Your task to perform on an android device: View the shopping cart on amazon. Search for alienware aurora on amazon, select the first entry, add it to the cart, then select checkout. Image 0: 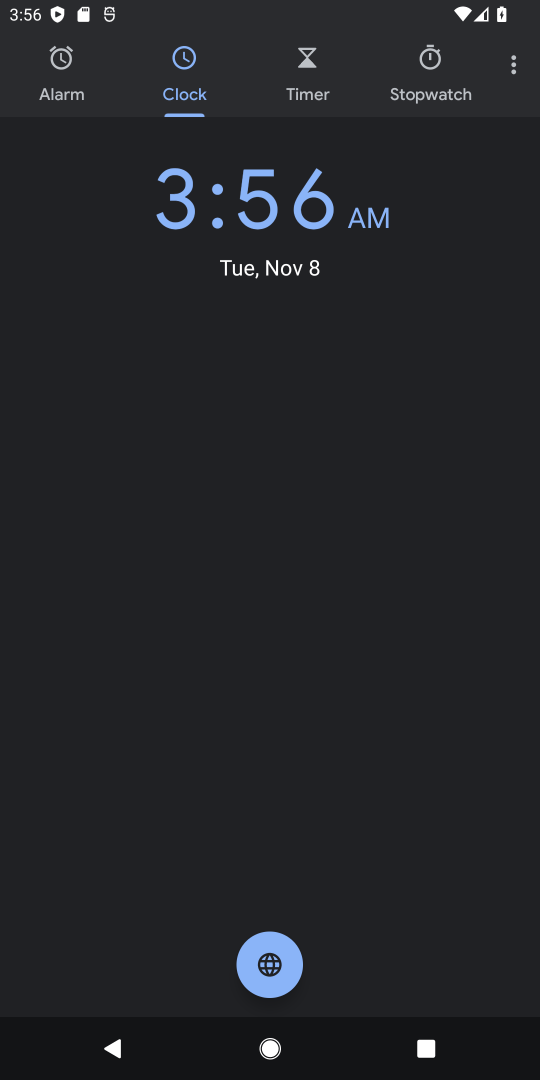
Step 0: press home button
Your task to perform on an android device: View the shopping cart on amazon. Search for alienware aurora on amazon, select the first entry, add it to the cart, then select checkout. Image 1: 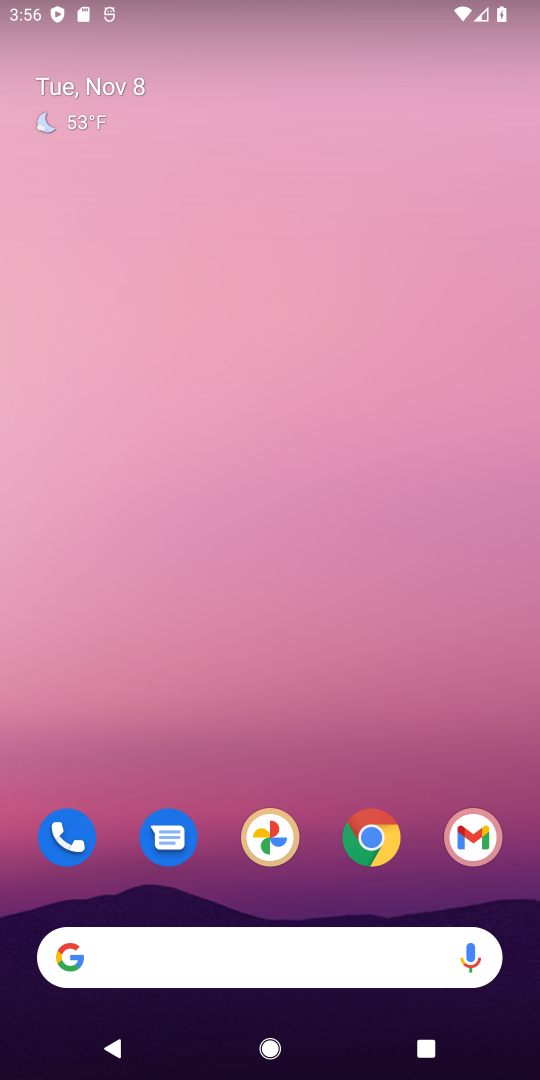
Step 1: press home button
Your task to perform on an android device: View the shopping cart on amazon. Search for alienware aurora on amazon, select the first entry, add it to the cart, then select checkout. Image 2: 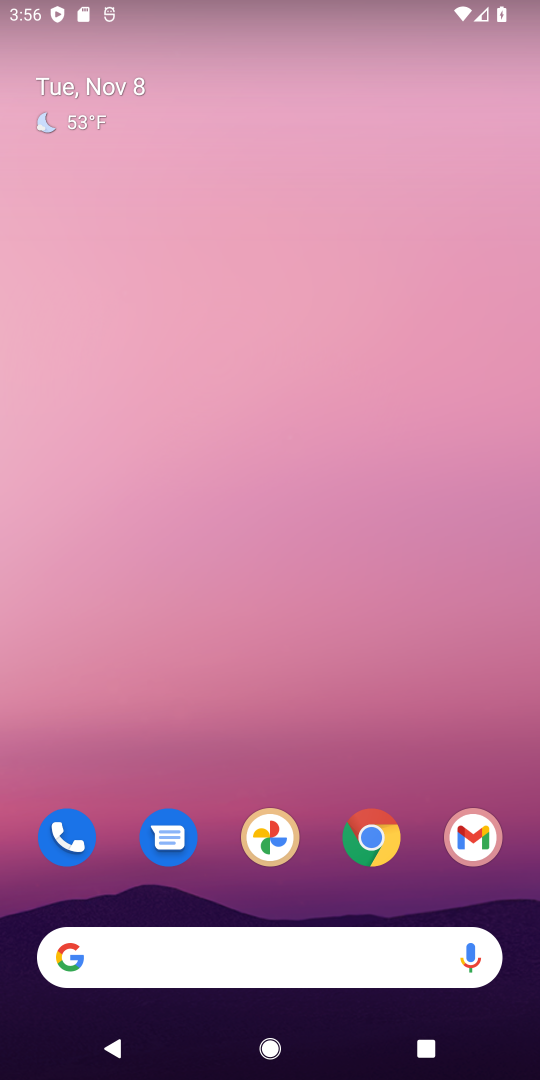
Step 2: click (375, 847)
Your task to perform on an android device: View the shopping cart on amazon. Search for alienware aurora on amazon, select the first entry, add it to the cart, then select checkout. Image 3: 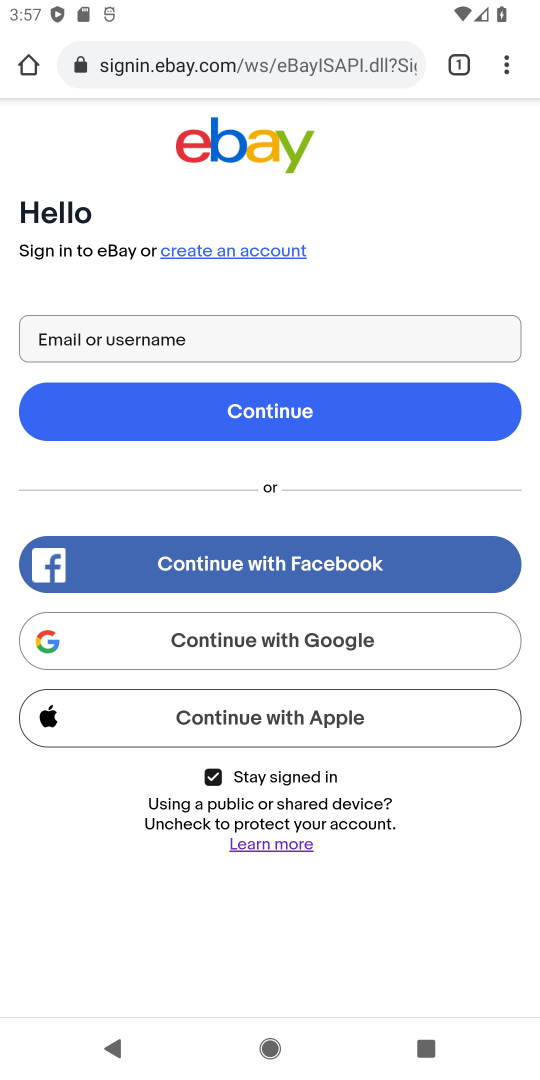
Step 3: click (139, 58)
Your task to perform on an android device: View the shopping cart on amazon. Search for alienware aurora on amazon, select the first entry, add it to the cart, then select checkout. Image 4: 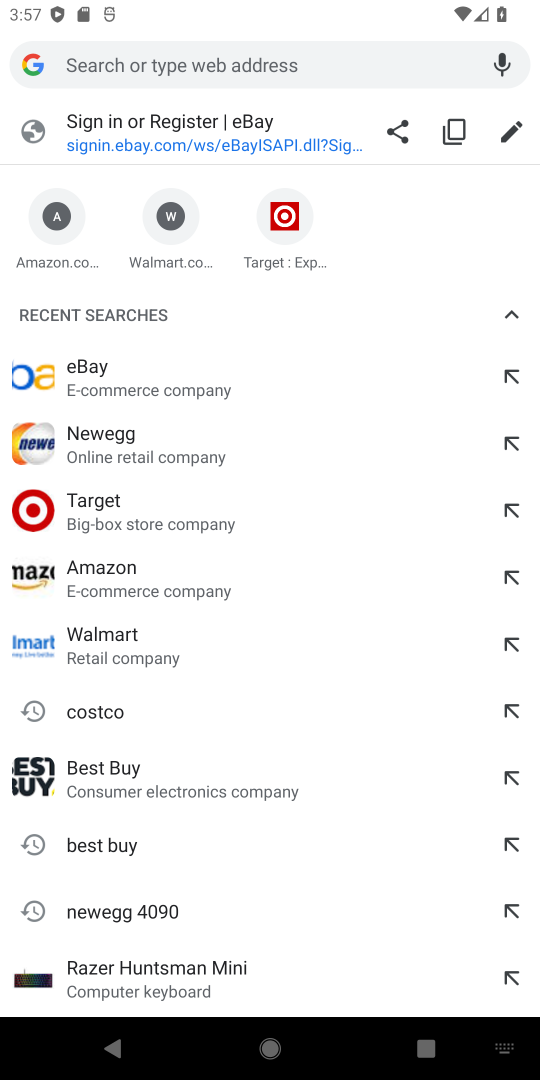
Step 4: type "amazon"
Your task to perform on an android device: View the shopping cart on amazon. Search for alienware aurora on amazon, select the first entry, add it to the cart, then select checkout. Image 5: 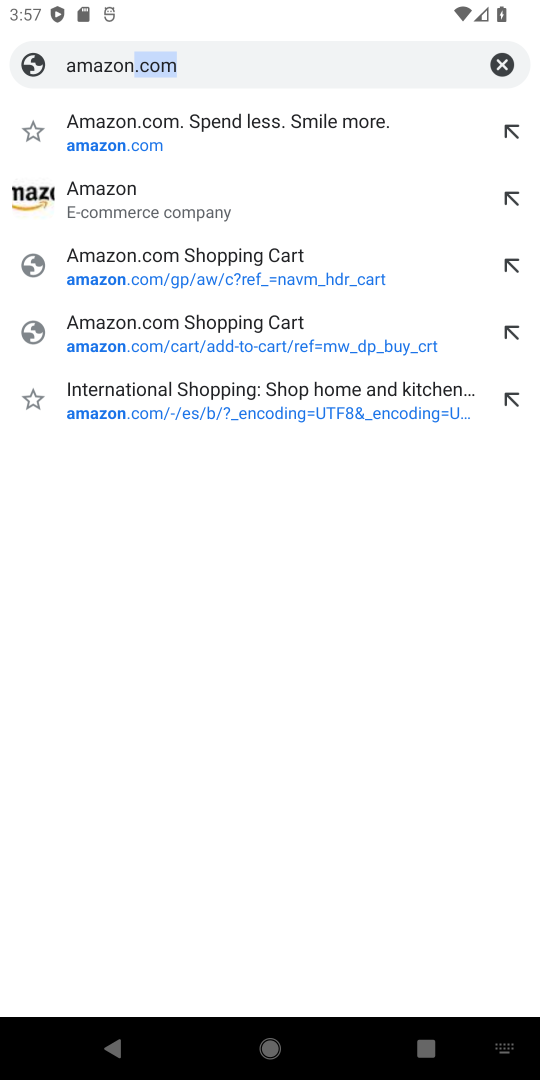
Step 5: click (98, 195)
Your task to perform on an android device: View the shopping cart on amazon. Search for alienware aurora on amazon, select the first entry, add it to the cart, then select checkout. Image 6: 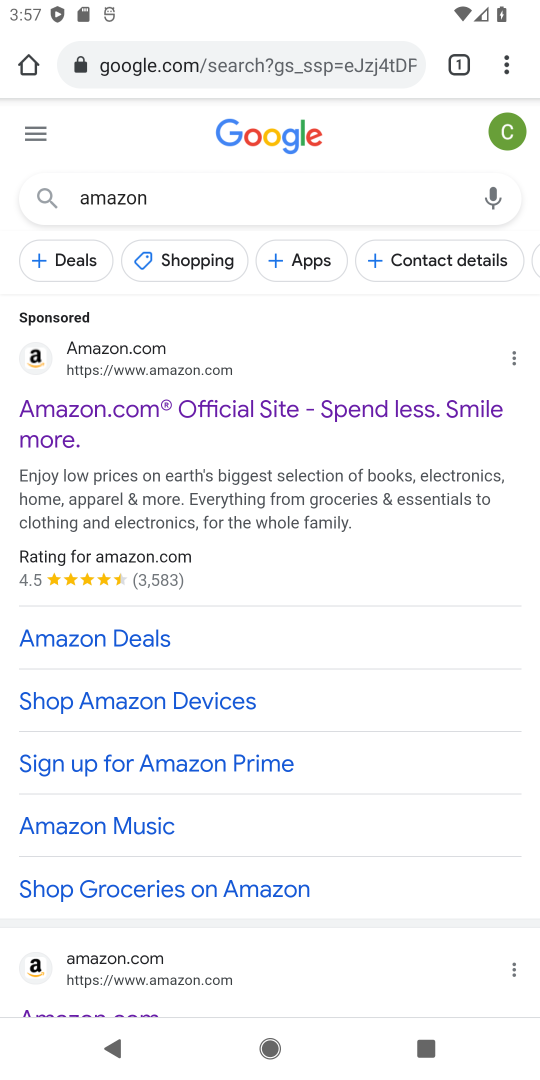
Step 6: click (118, 412)
Your task to perform on an android device: View the shopping cart on amazon. Search for alienware aurora on amazon, select the first entry, add it to the cart, then select checkout. Image 7: 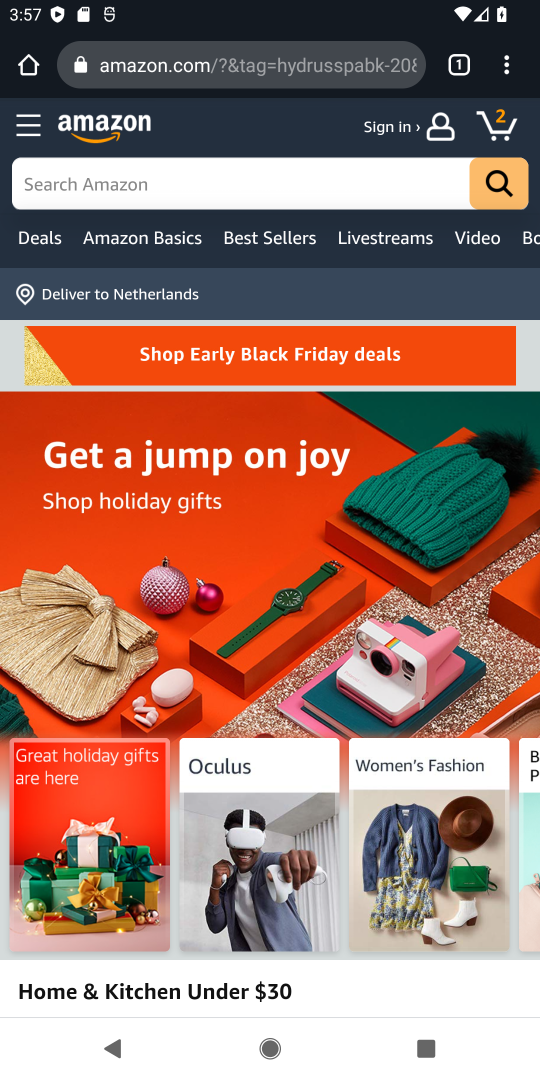
Step 7: click (153, 175)
Your task to perform on an android device: View the shopping cart on amazon. Search for alienware aurora on amazon, select the first entry, add it to the cart, then select checkout. Image 8: 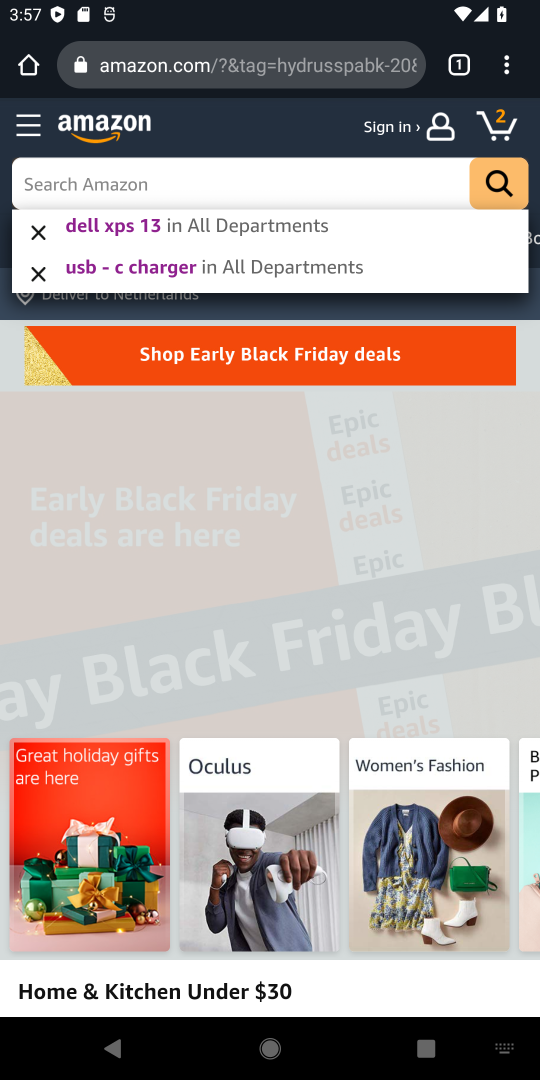
Step 8: type "alienware aurora"
Your task to perform on an android device: View the shopping cart on amazon. Search for alienware aurora on amazon, select the first entry, add it to the cart, then select checkout. Image 9: 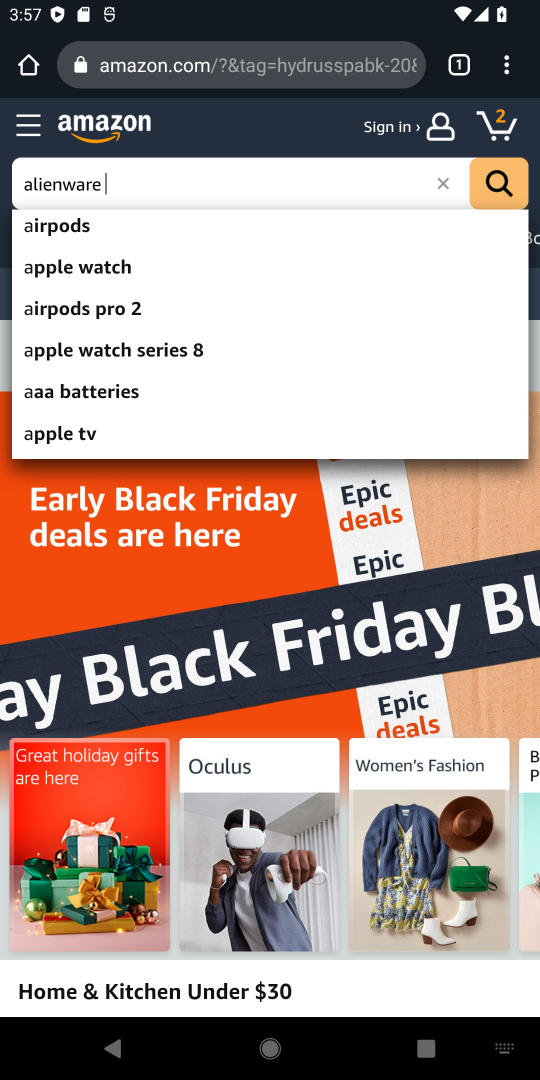
Step 9: type ""
Your task to perform on an android device: View the shopping cart on amazon. Search for alienware aurora on amazon, select the first entry, add it to the cart, then select checkout. Image 10: 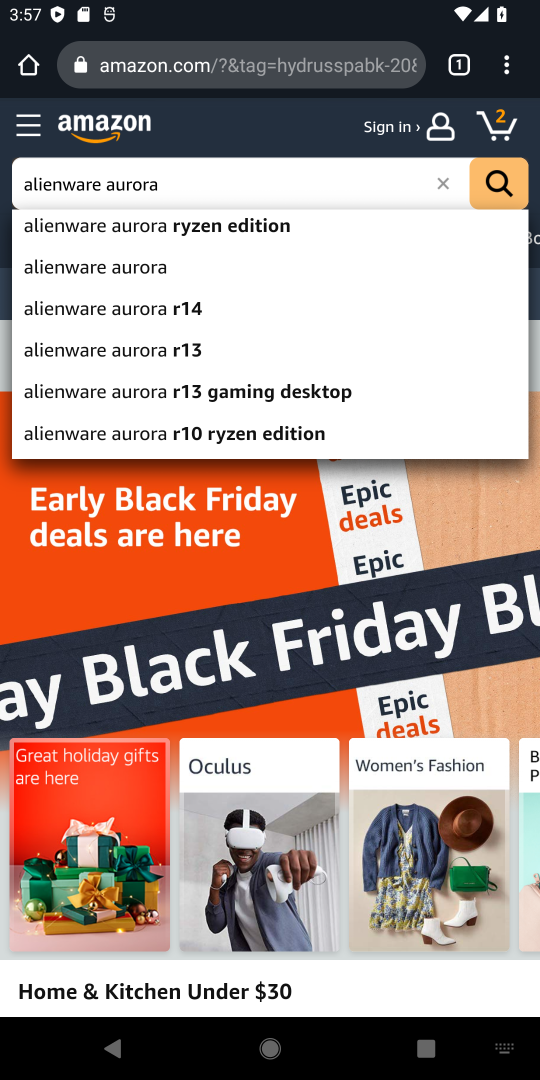
Step 10: click (133, 268)
Your task to perform on an android device: View the shopping cart on amazon. Search for alienware aurora on amazon, select the first entry, add it to the cart, then select checkout. Image 11: 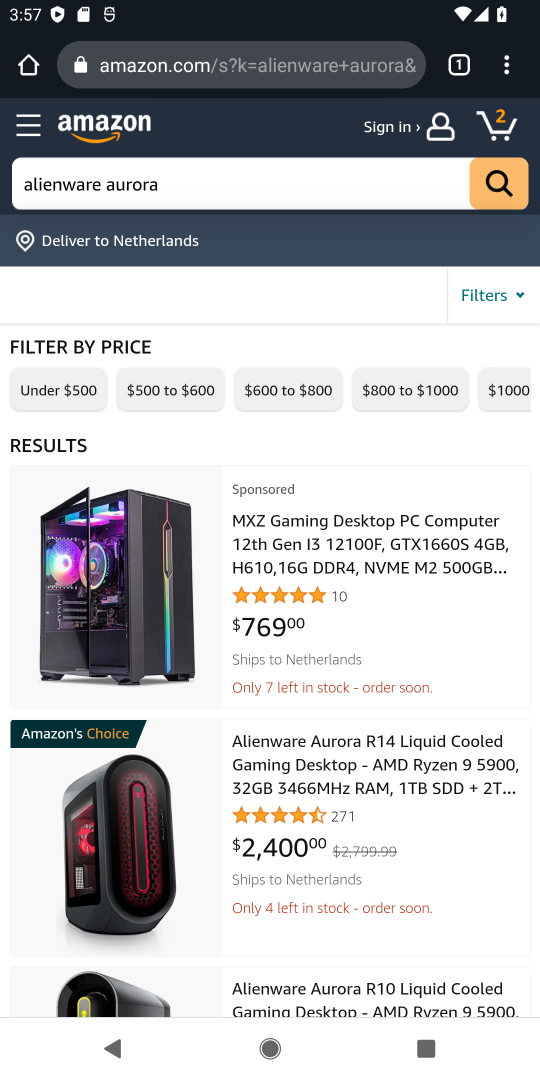
Step 11: click (292, 739)
Your task to perform on an android device: View the shopping cart on amazon. Search for alienware aurora on amazon, select the first entry, add it to the cart, then select checkout. Image 12: 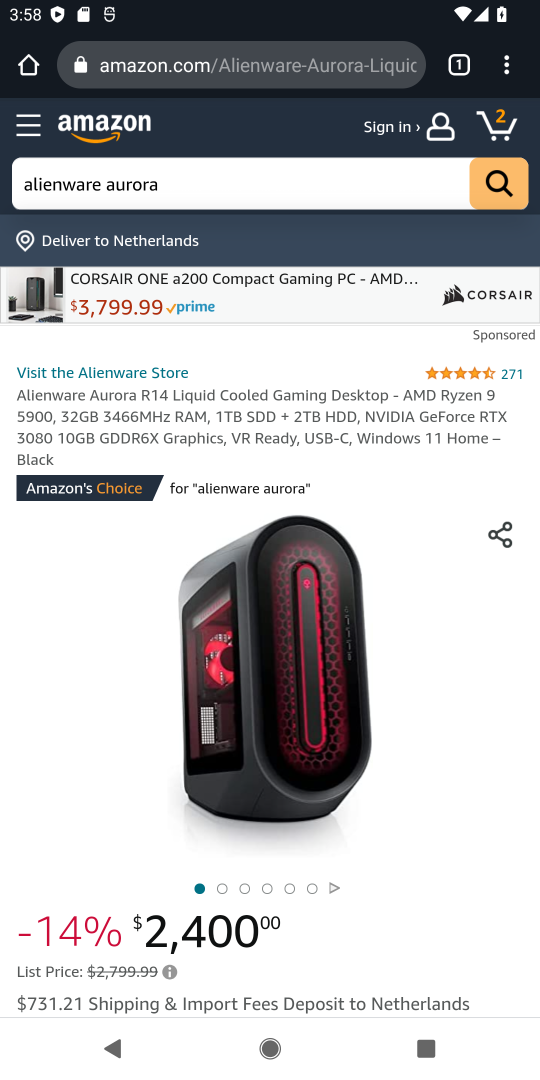
Step 12: drag from (102, 828) to (241, 302)
Your task to perform on an android device: View the shopping cart on amazon. Search for alienware aurora on amazon, select the first entry, add it to the cart, then select checkout. Image 13: 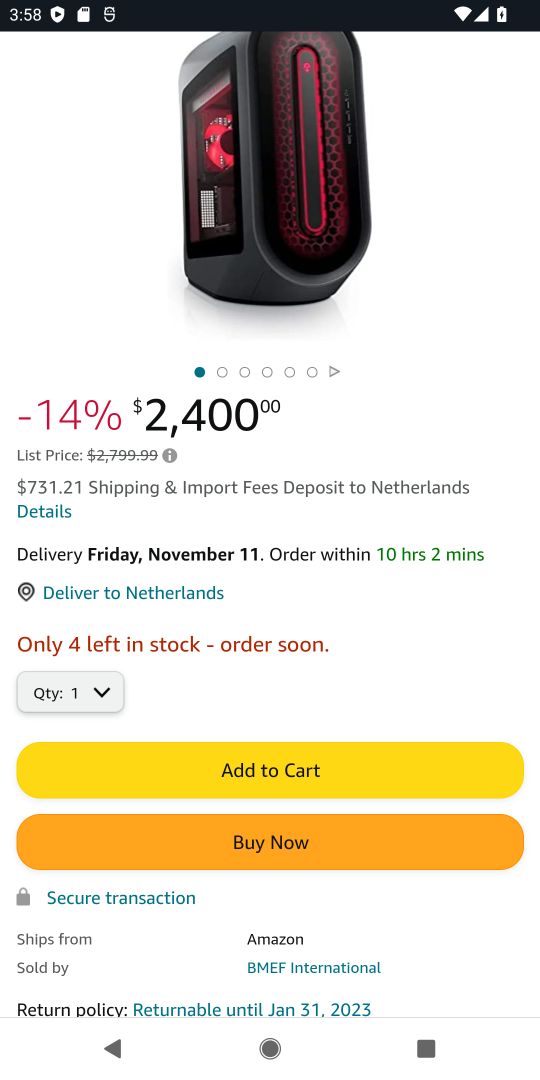
Step 13: click (261, 774)
Your task to perform on an android device: View the shopping cart on amazon. Search for alienware aurora on amazon, select the first entry, add it to the cart, then select checkout. Image 14: 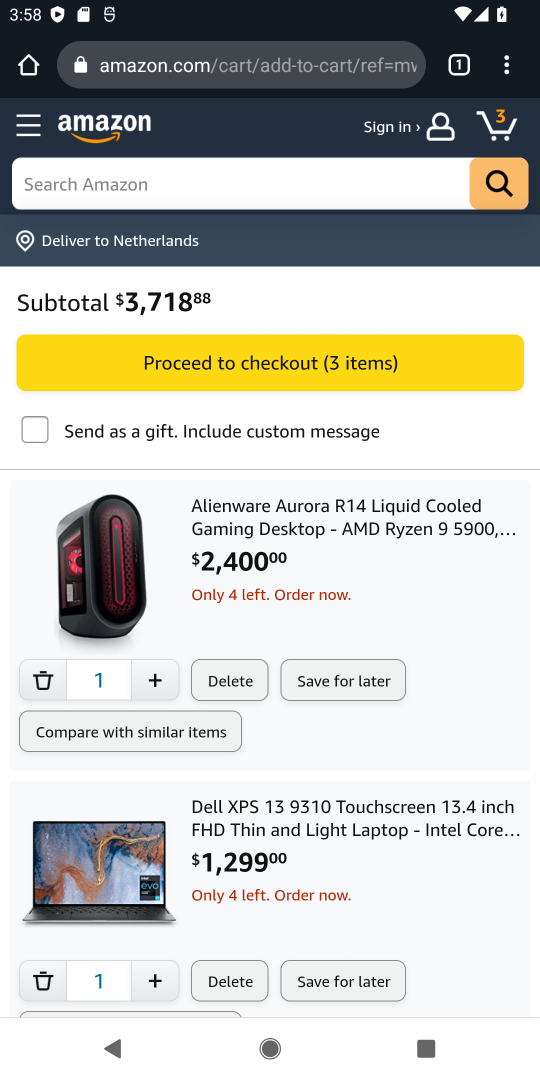
Step 14: drag from (366, 731) to (337, 956)
Your task to perform on an android device: View the shopping cart on amazon. Search for alienware aurora on amazon, select the first entry, add it to the cart, then select checkout. Image 15: 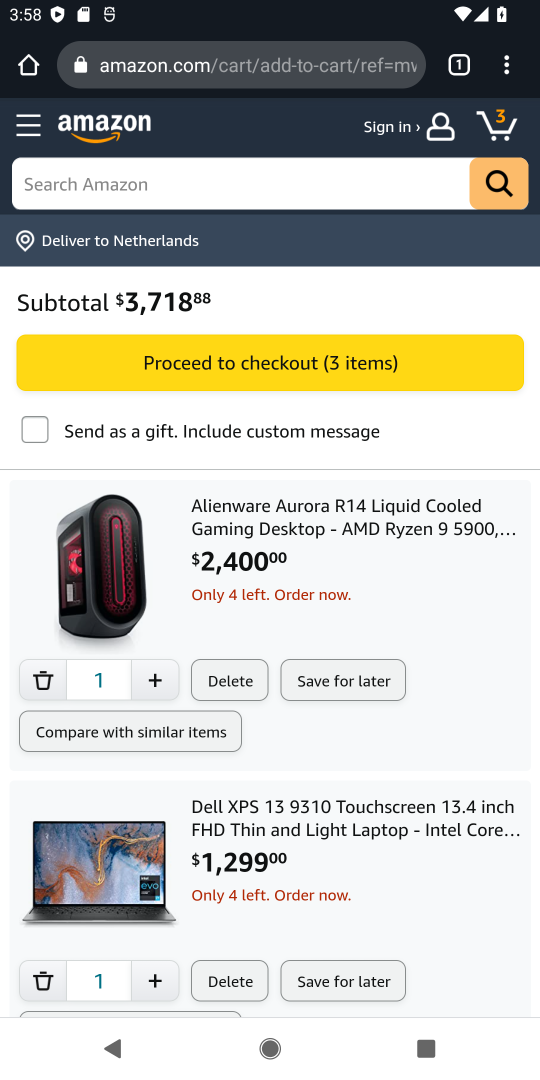
Step 15: click (217, 371)
Your task to perform on an android device: View the shopping cart on amazon. Search for alienware aurora on amazon, select the first entry, add it to the cart, then select checkout. Image 16: 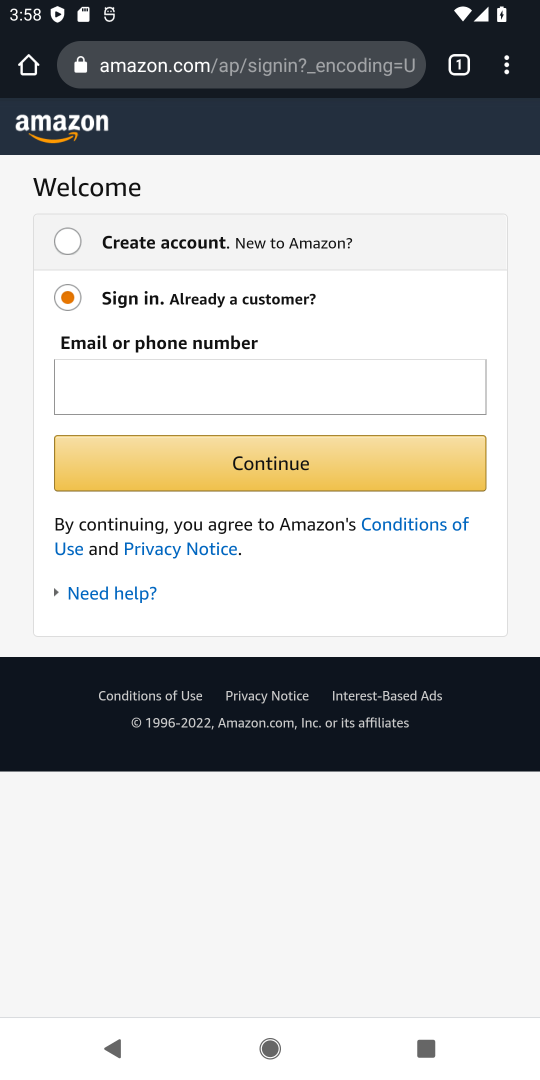
Step 16: task complete